Your task to perform on an android device: Open Youtube and go to the subscriptions tab Image 0: 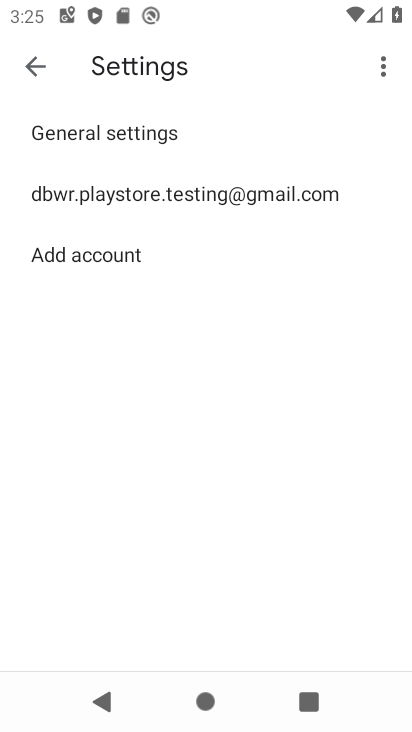
Step 0: press home button
Your task to perform on an android device: Open Youtube and go to the subscriptions tab Image 1: 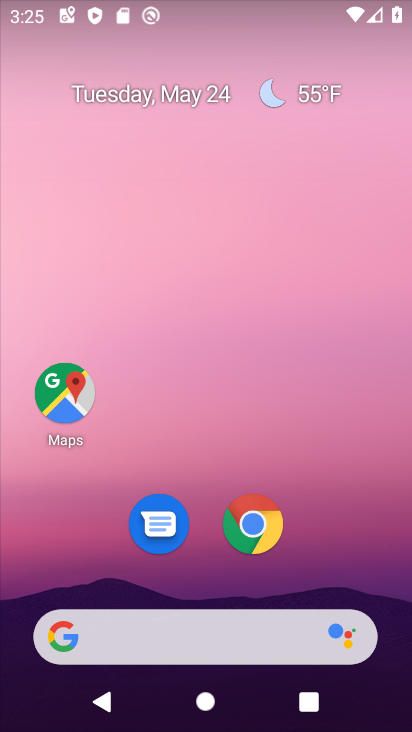
Step 1: drag from (370, 542) to (322, 7)
Your task to perform on an android device: Open Youtube and go to the subscriptions tab Image 2: 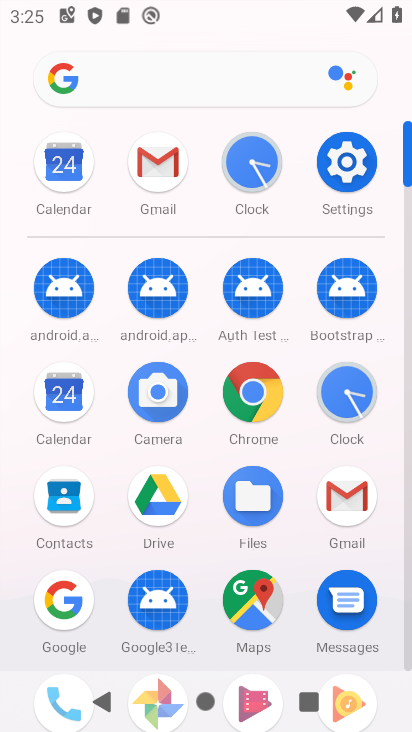
Step 2: drag from (206, 445) to (207, 62)
Your task to perform on an android device: Open Youtube and go to the subscriptions tab Image 3: 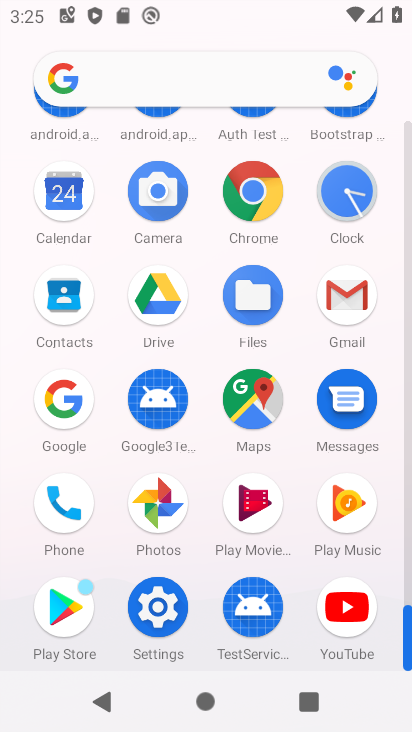
Step 3: click (341, 610)
Your task to perform on an android device: Open Youtube and go to the subscriptions tab Image 4: 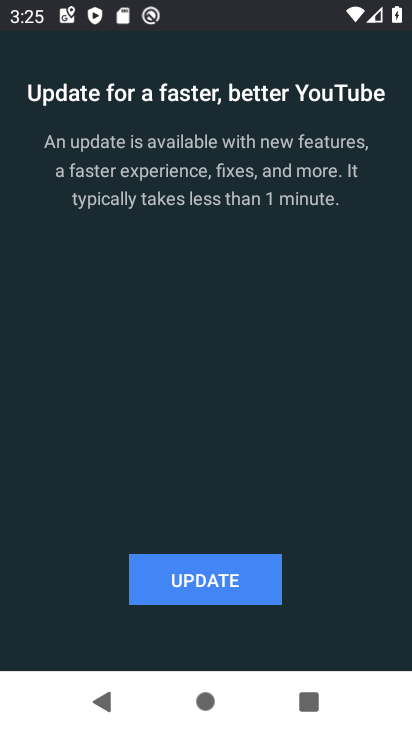
Step 4: click (277, 589)
Your task to perform on an android device: Open Youtube and go to the subscriptions tab Image 5: 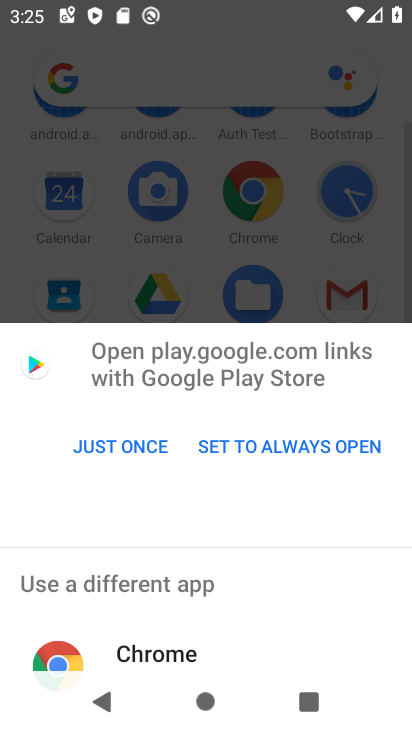
Step 5: click (130, 440)
Your task to perform on an android device: Open Youtube and go to the subscriptions tab Image 6: 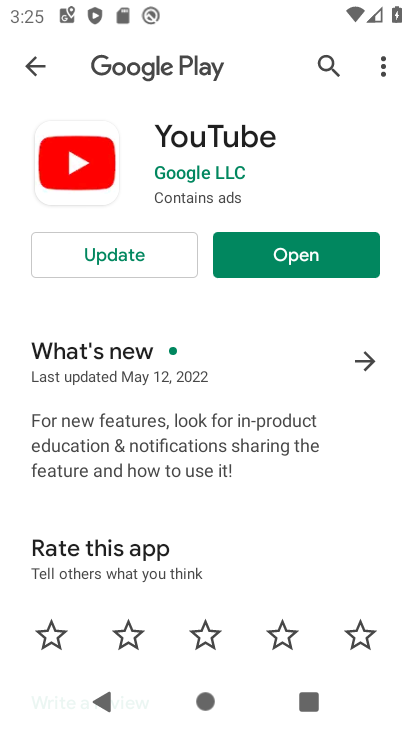
Step 6: click (122, 254)
Your task to perform on an android device: Open Youtube and go to the subscriptions tab Image 7: 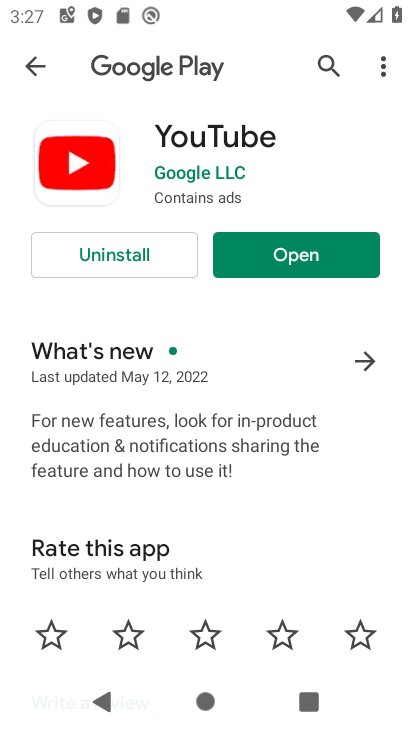
Step 7: click (319, 247)
Your task to perform on an android device: Open Youtube and go to the subscriptions tab Image 8: 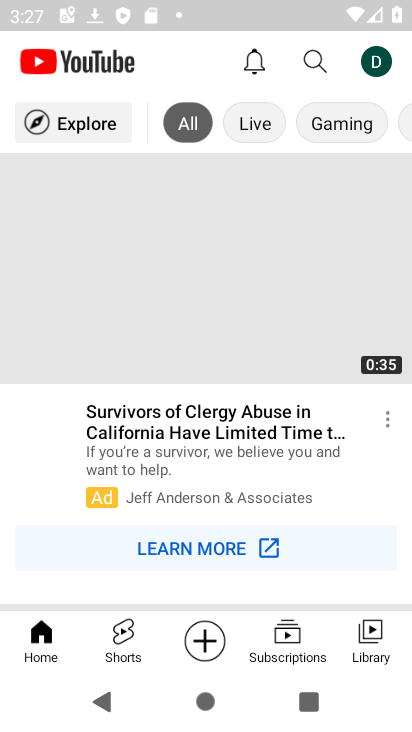
Step 8: click (297, 648)
Your task to perform on an android device: Open Youtube and go to the subscriptions tab Image 9: 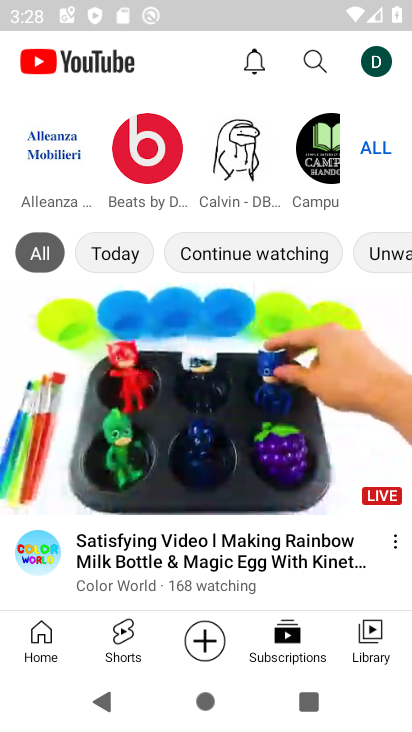
Step 9: task complete